Your task to perform on an android device: Open Android settings Image 0: 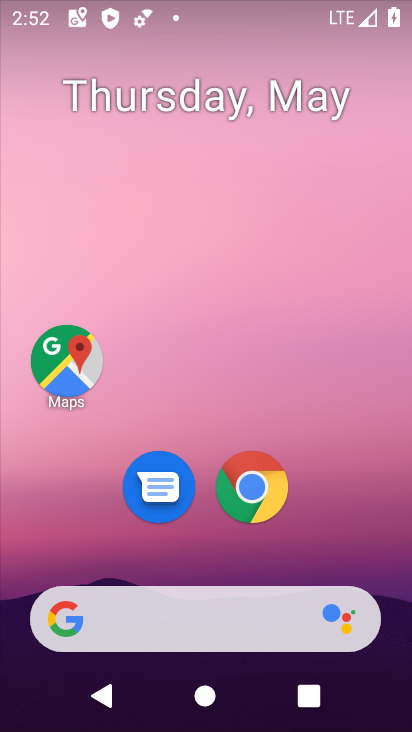
Step 0: drag from (243, 466) to (287, 125)
Your task to perform on an android device: Open Android settings Image 1: 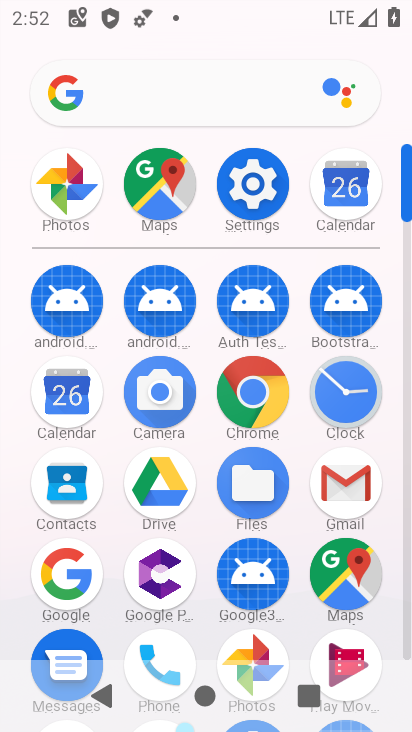
Step 1: click (262, 190)
Your task to perform on an android device: Open Android settings Image 2: 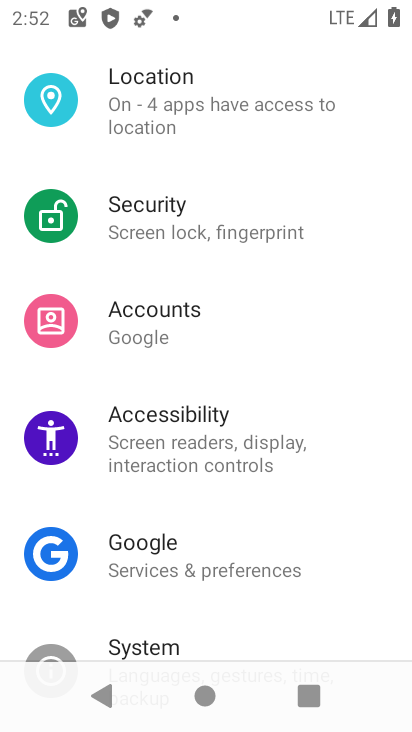
Step 2: drag from (189, 556) to (222, 278)
Your task to perform on an android device: Open Android settings Image 3: 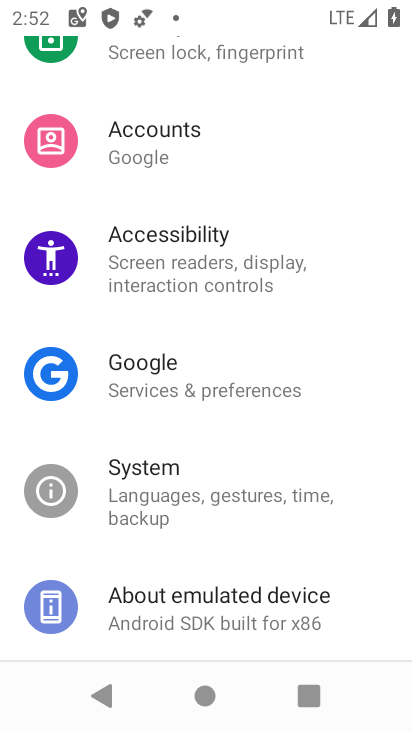
Step 3: drag from (202, 515) to (230, 247)
Your task to perform on an android device: Open Android settings Image 4: 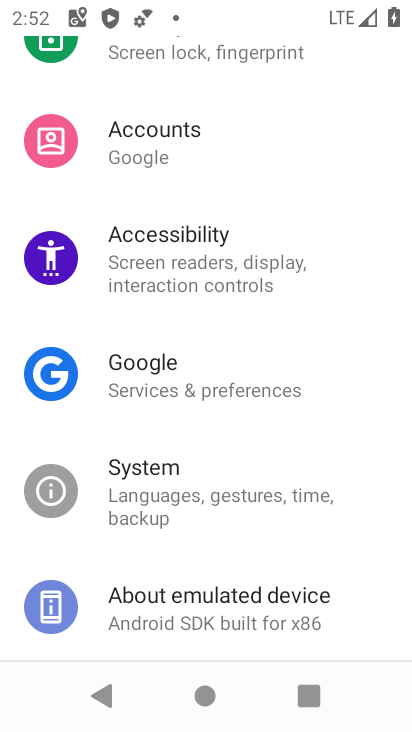
Step 4: drag from (218, 500) to (254, 261)
Your task to perform on an android device: Open Android settings Image 5: 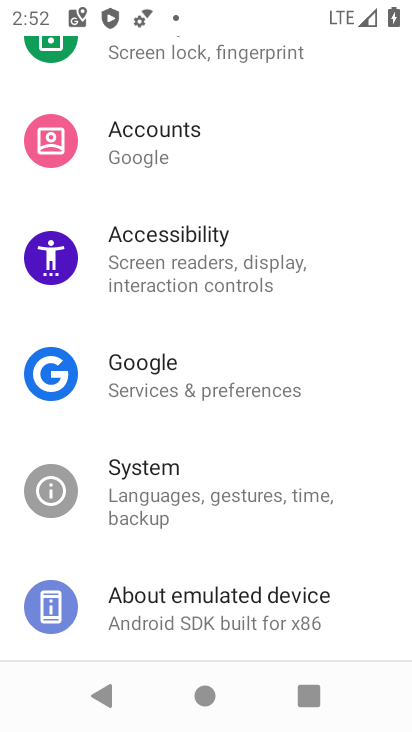
Step 5: drag from (243, 547) to (241, 317)
Your task to perform on an android device: Open Android settings Image 6: 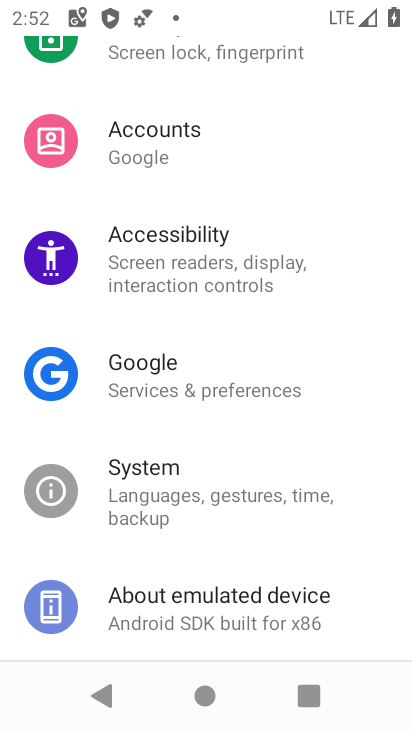
Step 6: drag from (245, 526) to (252, 313)
Your task to perform on an android device: Open Android settings Image 7: 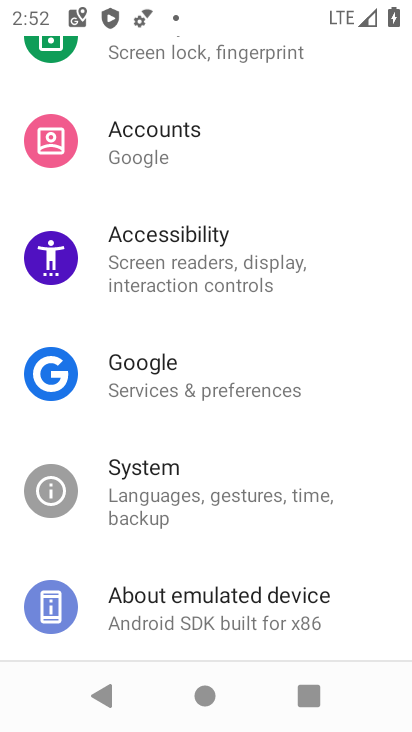
Step 7: drag from (258, 516) to (283, 212)
Your task to perform on an android device: Open Android settings Image 8: 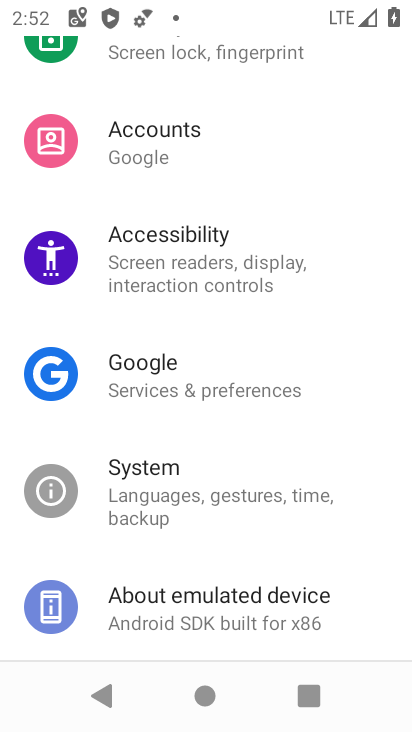
Step 8: click (248, 627)
Your task to perform on an android device: Open Android settings Image 9: 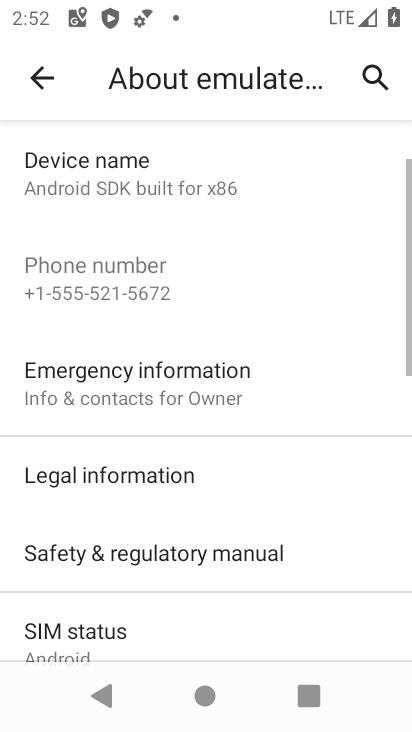
Step 9: task complete